Your task to perform on an android device: Open network settings Image 0: 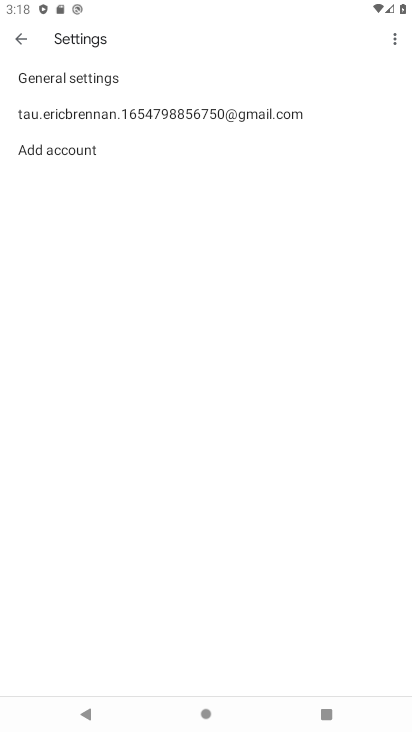
Step 0: press home button
Your task to perform on an android device: Open network settings Image 1: 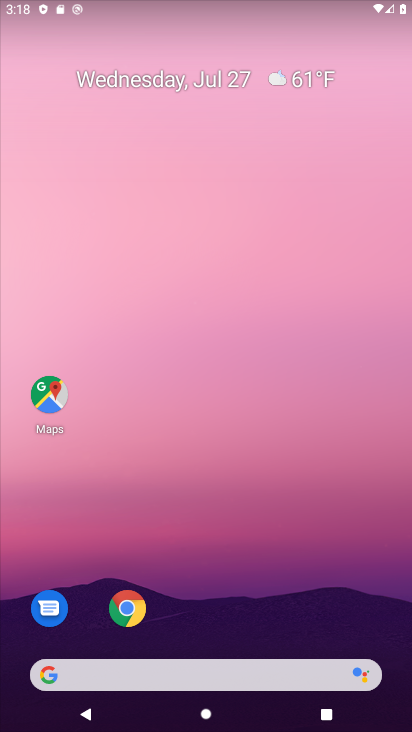
Step 1: drag from (238, 705) to (217, 297)
Your task to perform on an android device: Open network settings Image 2: 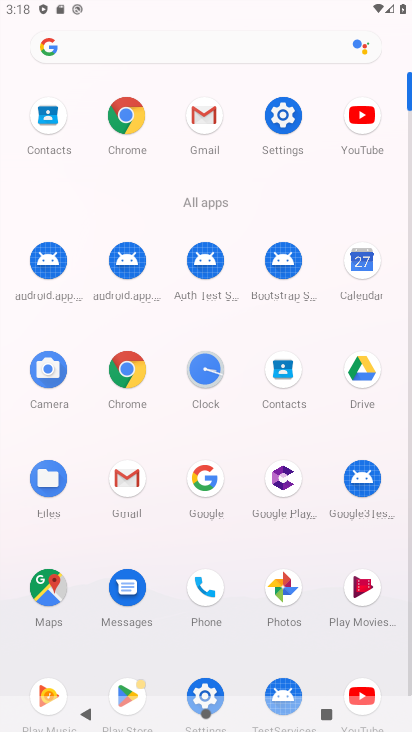
Step 2: click (282, 125)
Your task to perform on an android device: Open network settings Image 3: 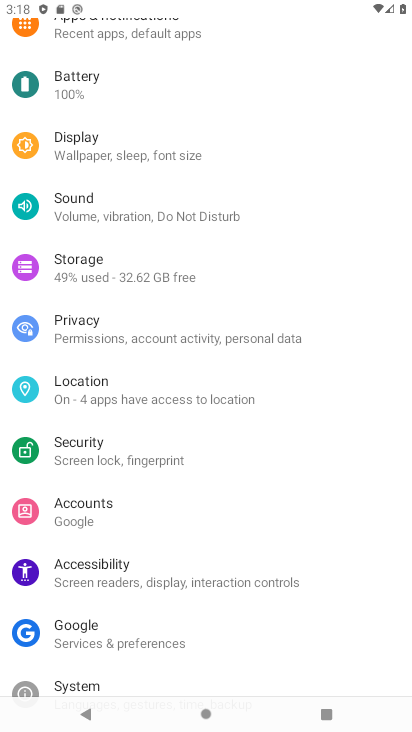
Step 3: drag from (172, 86) to (200, 617)
Your task to perform on an android device: Open network settings Image 4: 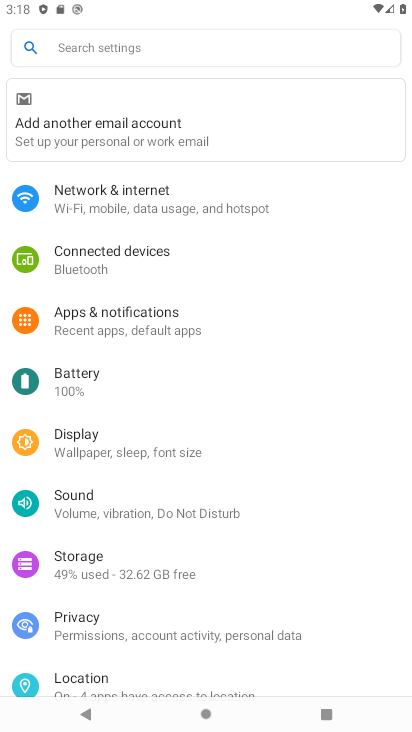
Step 4: click (92, 203)
Your task to perform on an android device: Open network settings Image 5: 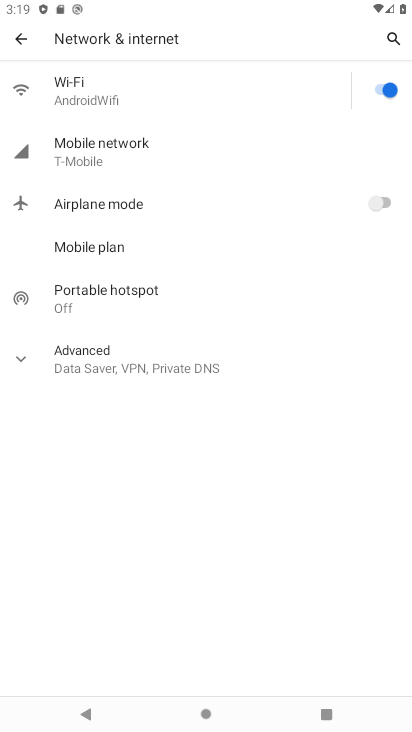
Step 5: click (78, 147)
Your task to perform on an android device: Open network settings Image 6: 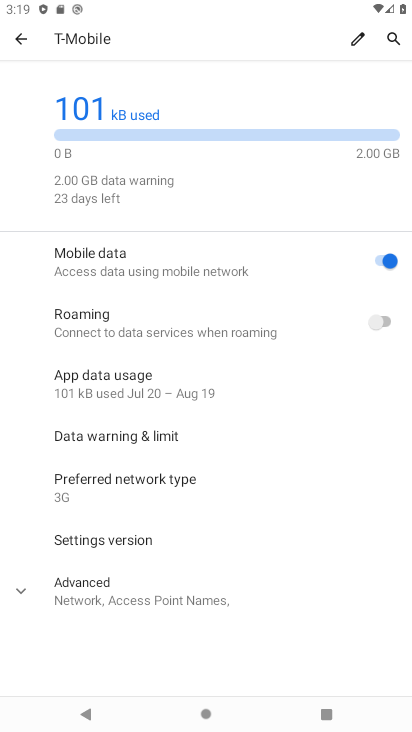
Step 6: task complete